Your task to perform on an android device: turn off translation in the chrome app Image 0: 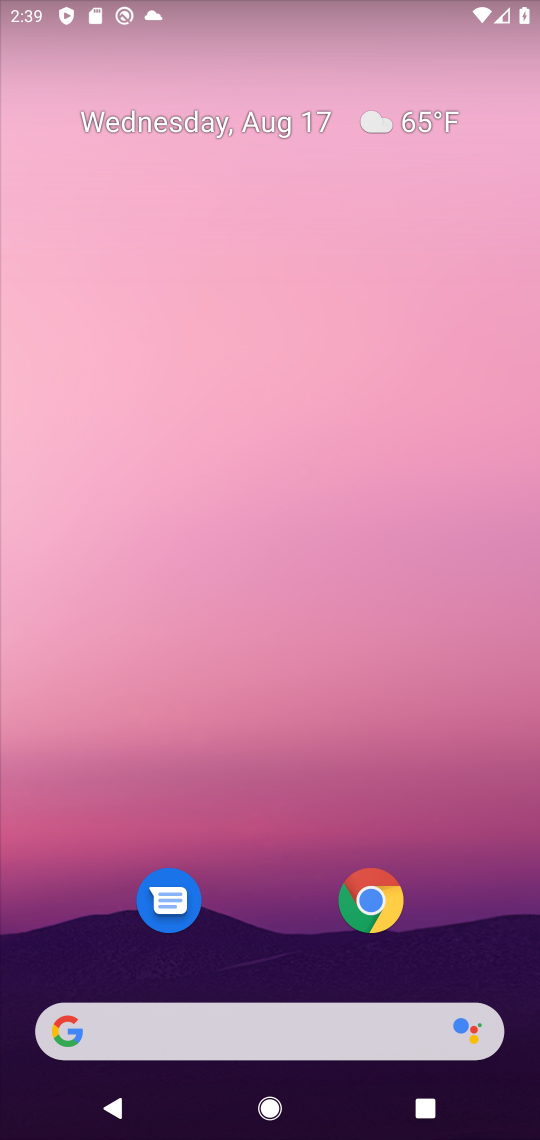
Step 0: click (362, 908)
Your task to perform on an android device: turn off translation in the chrome app Image 1: 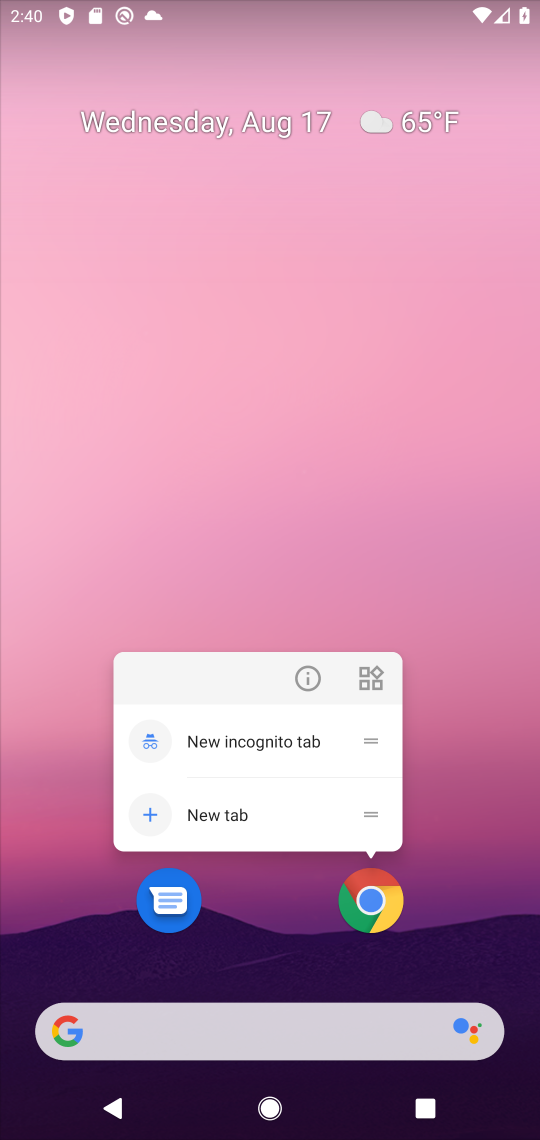
Step 1: click (375, 903)
Your task to perform on an android device: turn off translation in the chrome app Image 2: 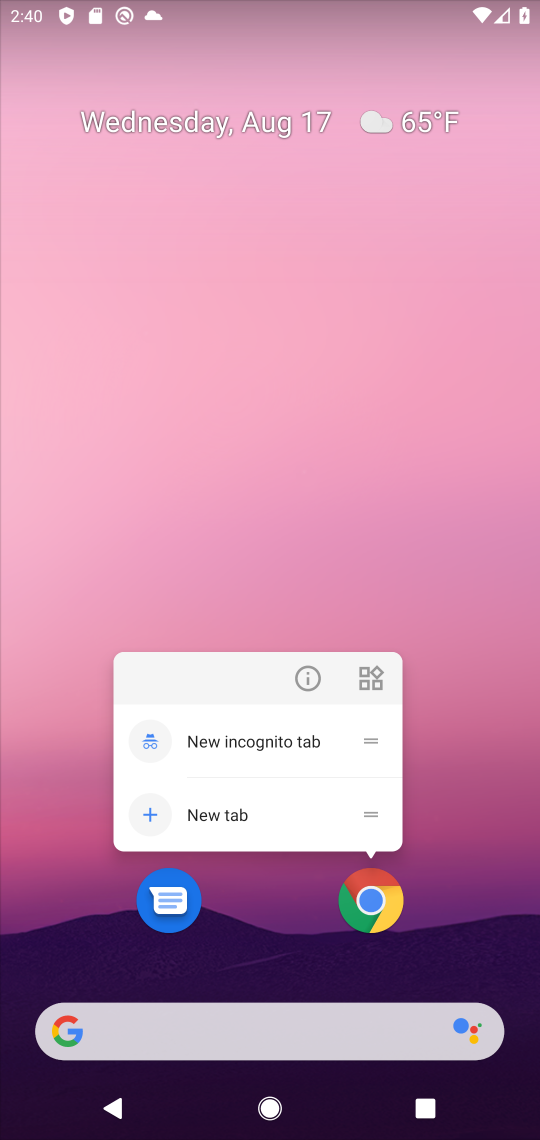
Step 2: click (375, 906)
Your task to perform on an android device: turn off translation in the chrome app Image 3: 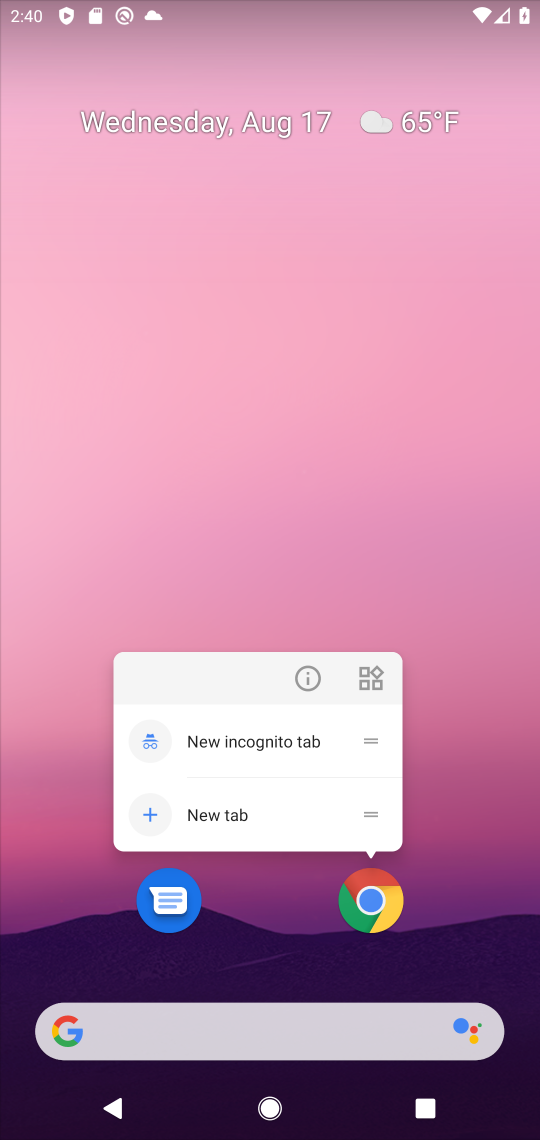
Step 3: click (368, 901)
Your task to perform on an android device: turn off translation in the chrome app Image 4: 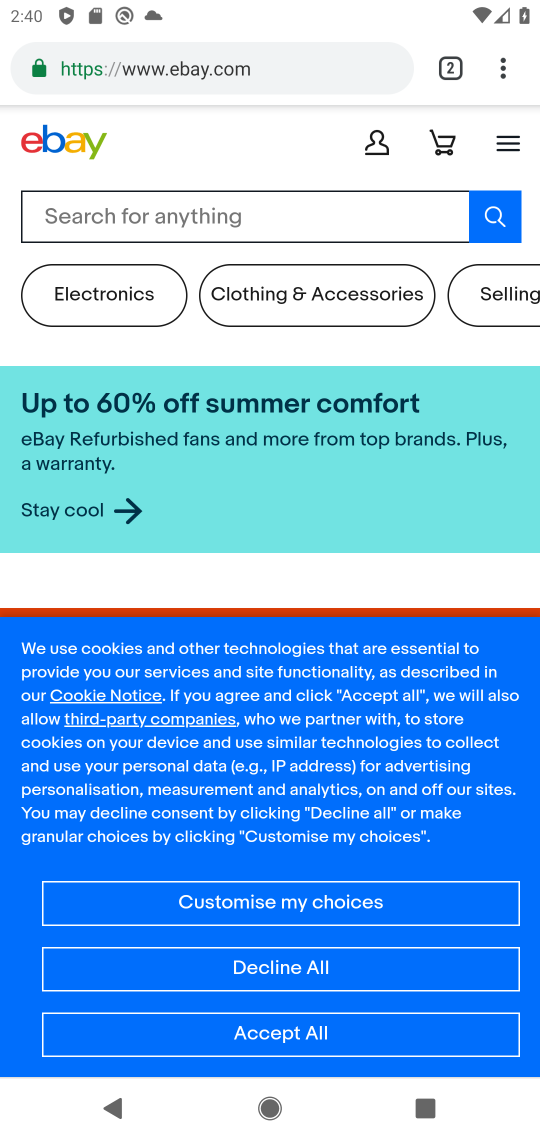
Step 4: drag from (501, 67) to (328, 907)
Your task to perform on an android device: turn off translation in the chrome app Image 5: 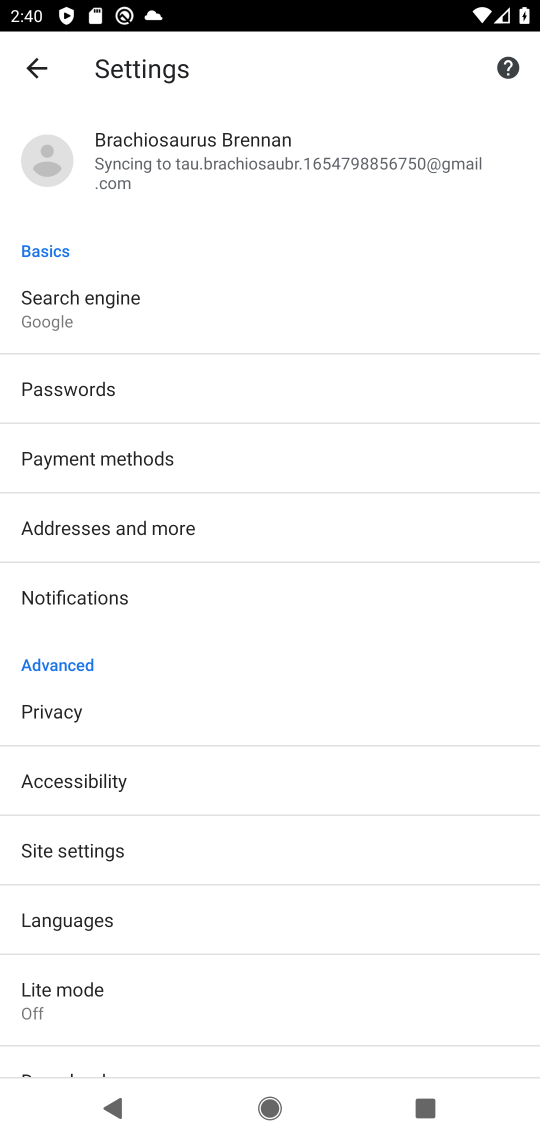
Step 5: click (110, 929)
Your task to perform on an android device: turn off translation in the chrome app Image 6: 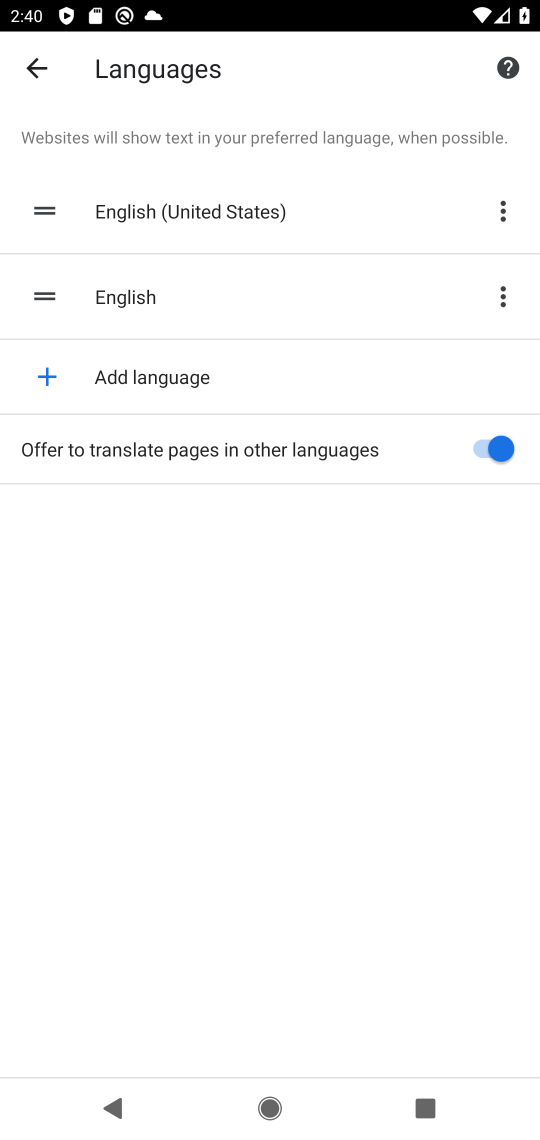
Step 6: click (483, 440)
Your task to perform on an android device: turn off translation in the chrome app Image 7: 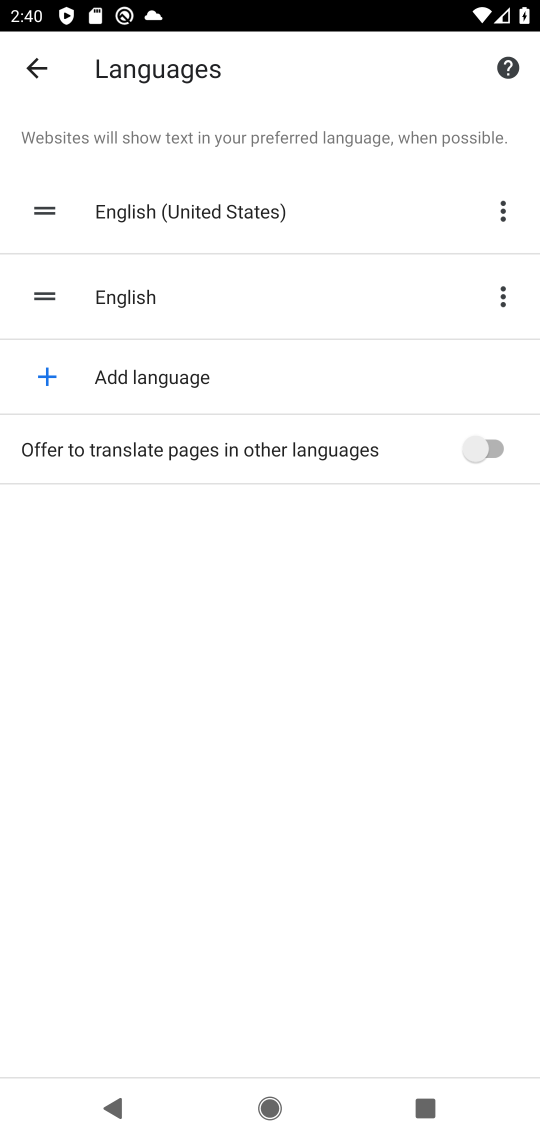
Step 7: task complete